Your task to perform on an android device: check the backup settings in the google photos Image 0: 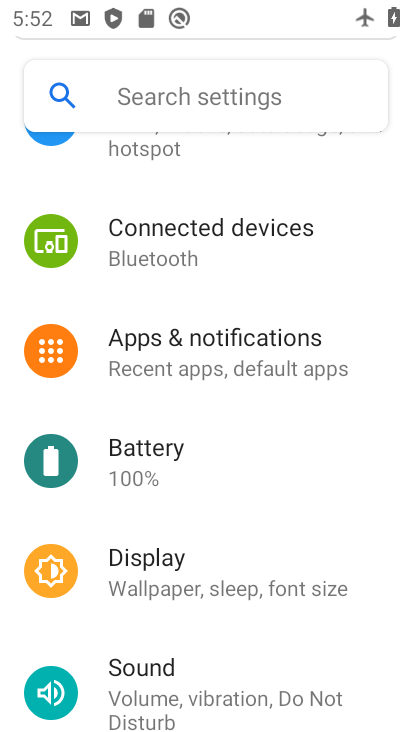
Step 0: press home button
Your task to perform on an android device: check the backup settings in the google photos Image 1: 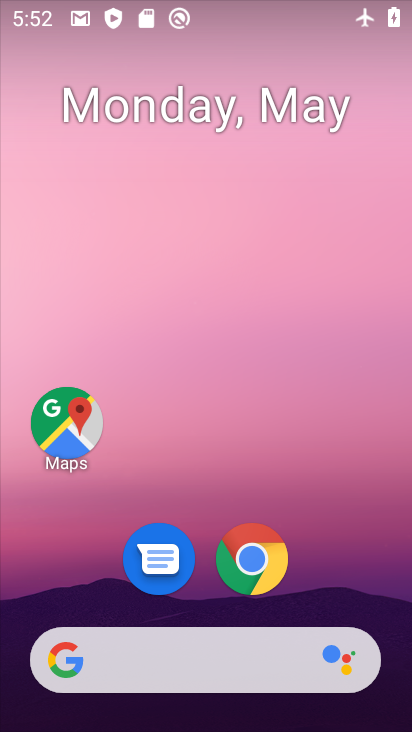
Step 1: drag from (330, 536) to (213, 121)
Your task to perform on an android device: check the backup settings in the google photos Image 2: 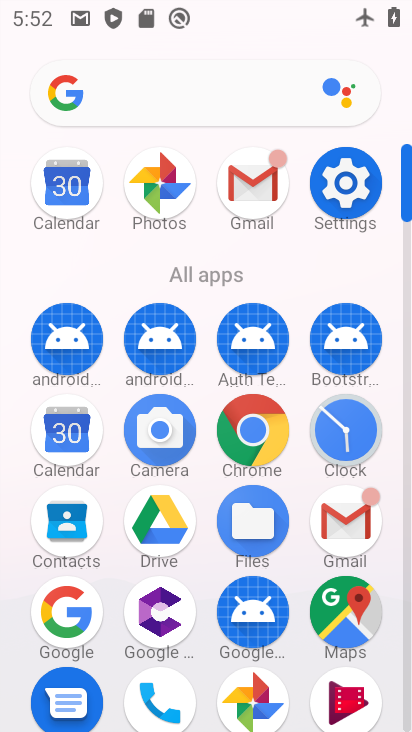
Step 2: click (163, 185)
Your task to perform on an android device: check the backup settings in the google photos Image 3: 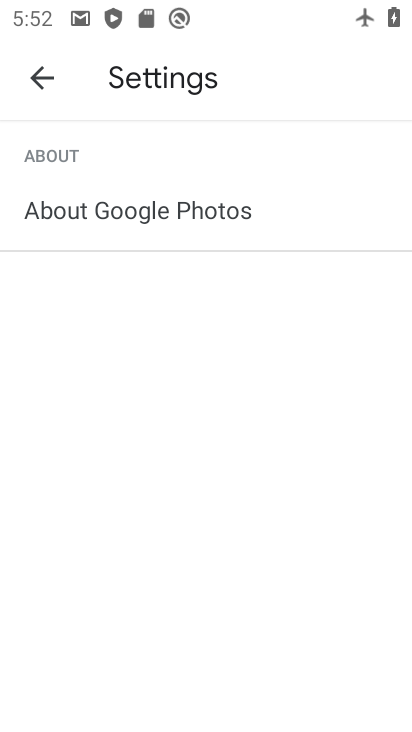
Step 3: click (46, 79)
Your task to perform on an android device: check the backup settings in the google photos Image 4: 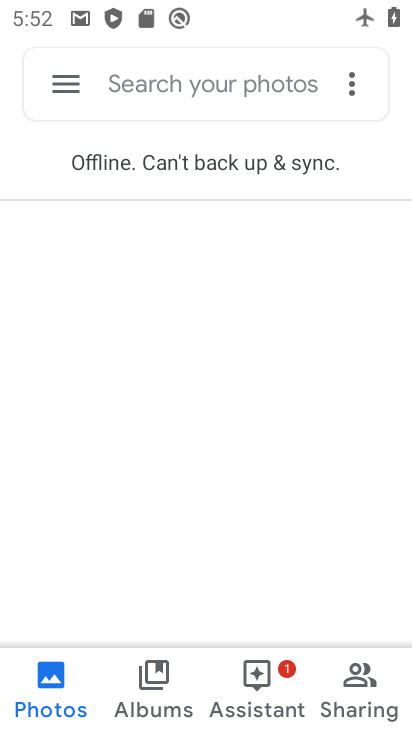
Step 4: click (60, 68)
Your task to perform on an android device: check the backup settings in the google photos Image 5: 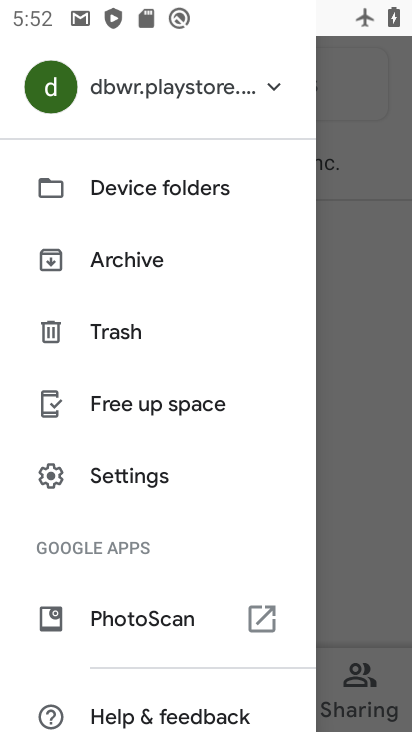
Step 5: click (147, 474)
Your task to perform on an android device: check the backup settings in the google photos Image 6: 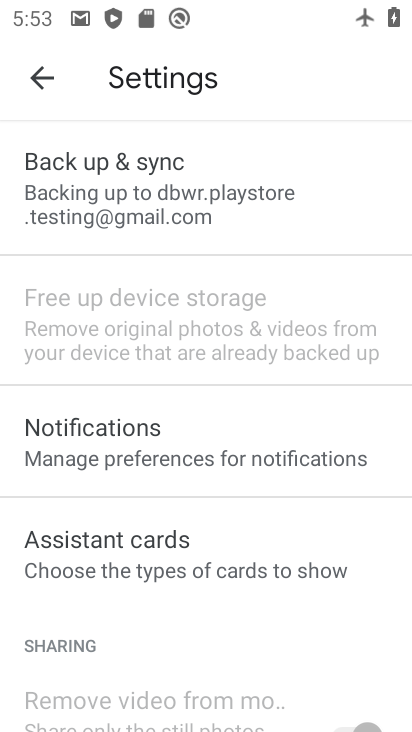
Step 6: click (132, 184)
Your task to perform on an android device: check the backup settings in the google photos Image 7: 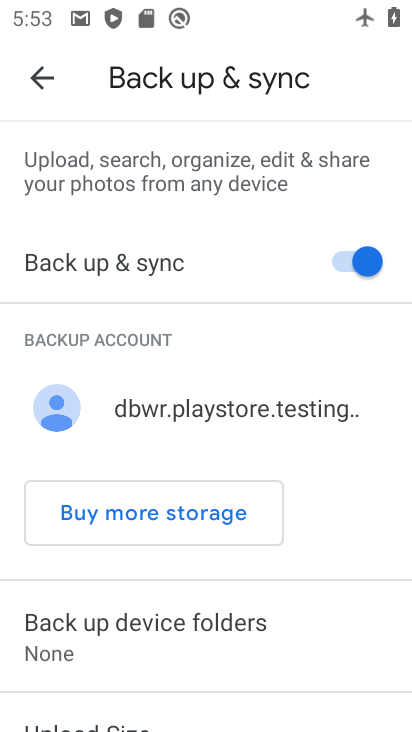
Step 7: task complete